Your task to perform on an android device: change notification settings in the gmail app Image 0: 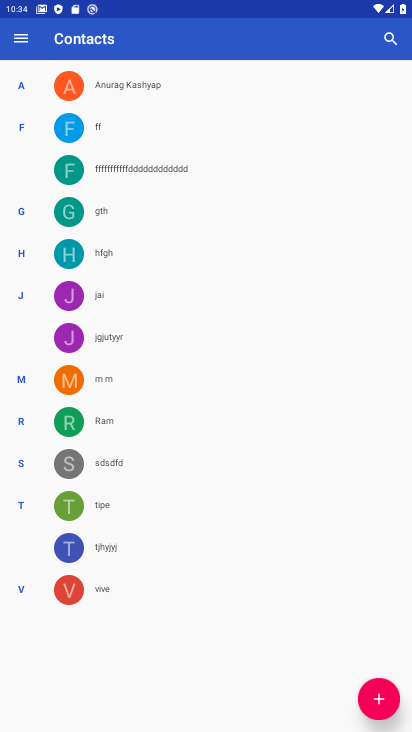
Step 0: press home button
Your task to perform on an android device: change notification settings in the gmail app Image 1: 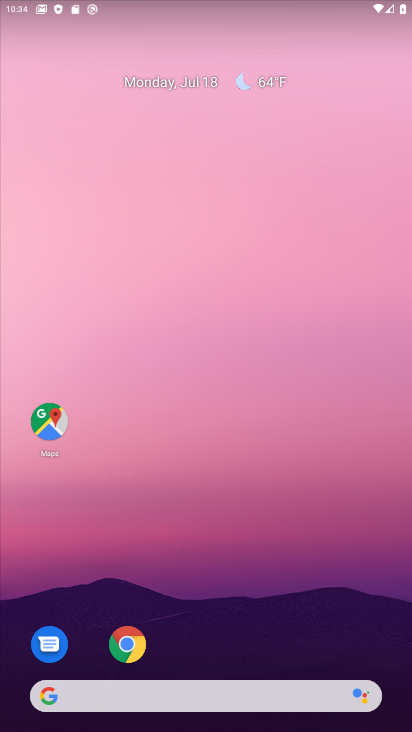
Step 1: drag from (252, 644) to (263, 46)
Your task to perform on an android device: change notification settings in the gmail app Image 2: 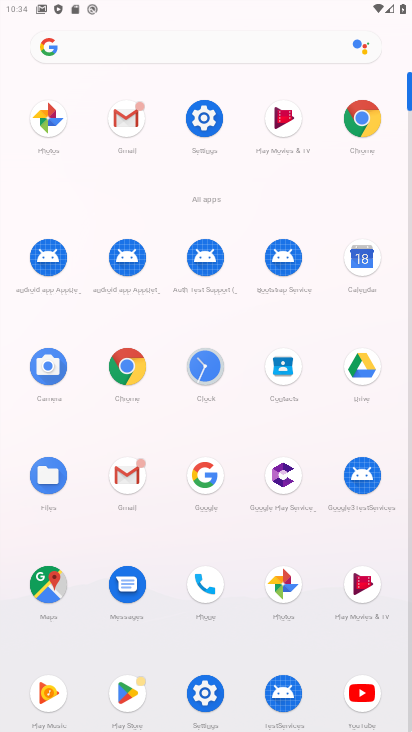
Step 2: click (125, 487)
Your task to perform on an android device: change notification settings in the gmail app Image 3: 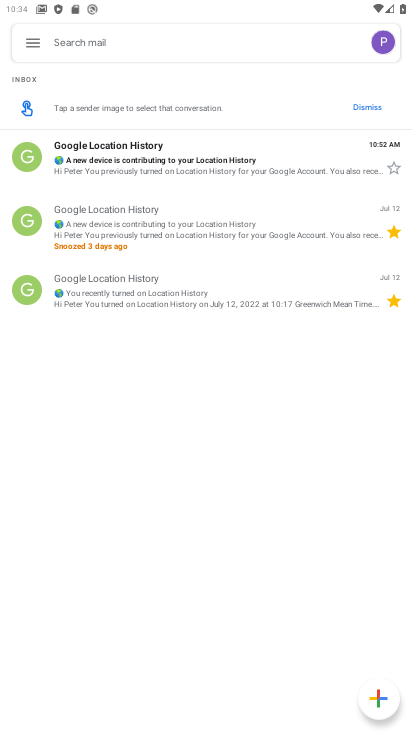
Step 3: click (23, 32)
Your task to perform on an android device: change notification settings in the gmail app Image 4: 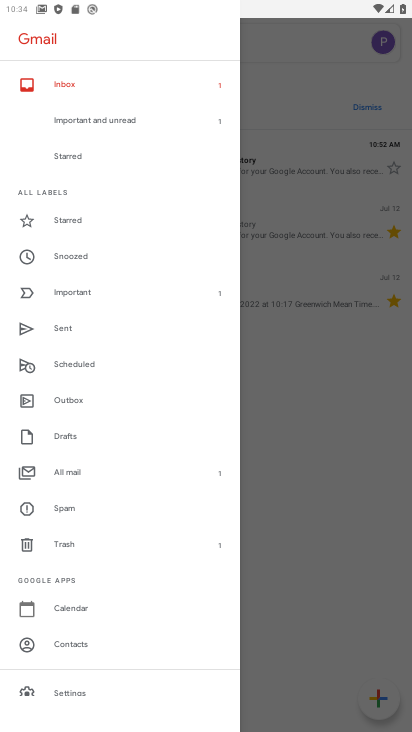
Step 4: click (91, 683)
Your task to perform on an android device: change notification settings in the gmail app Image 5: 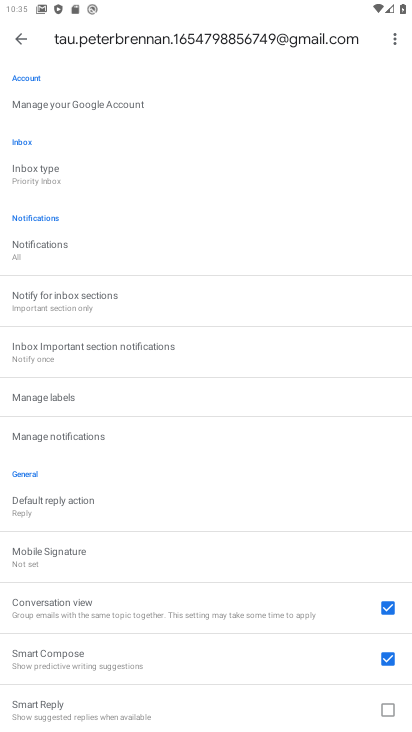
Step 5: click (113, 435)
Your task to perform on an android device: change notification settings in the gmail app Image 6: 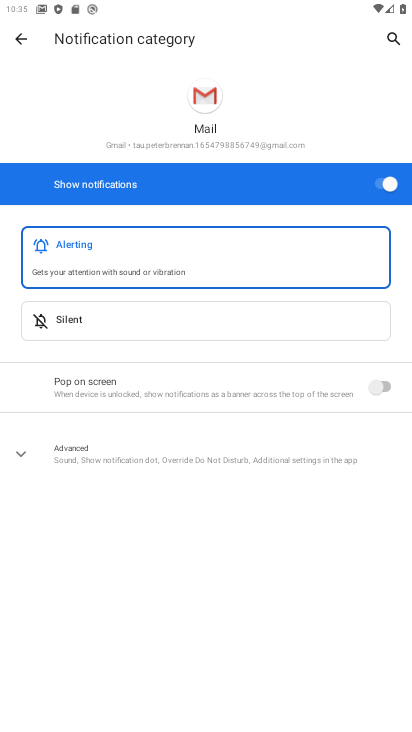
Step 6: click (391, 173)
Your task to perform on an android device: change notification settings in the gmail app Image 7: 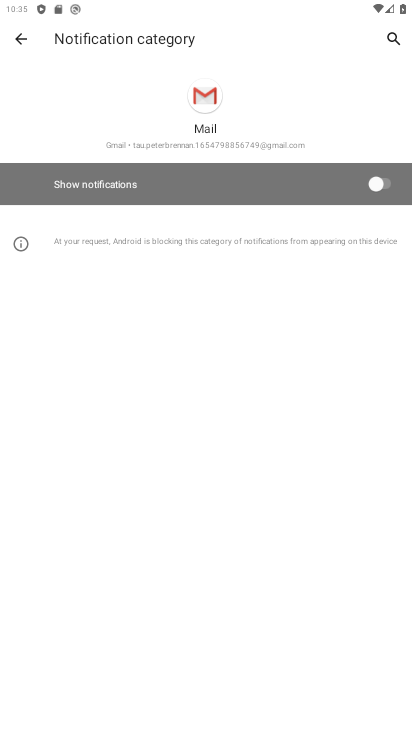
Step 7: task complete